Your task to perform on an android device: Search for pizza restaurants on Maps Image 0: 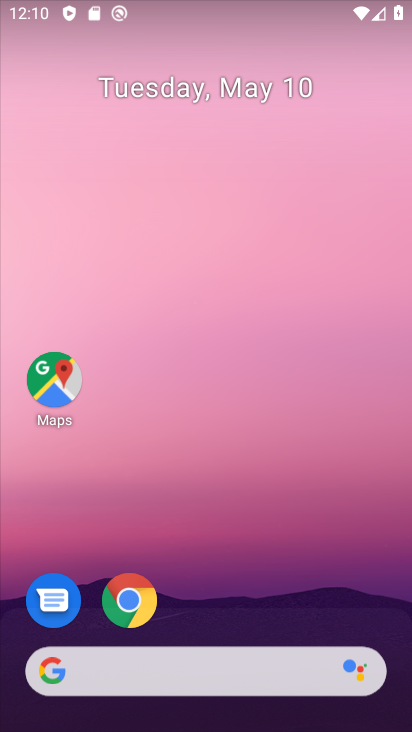
Step 0: click (59, 384)
Your task to perform on an android device: Search for pizza restaurants on Maps Image 1: 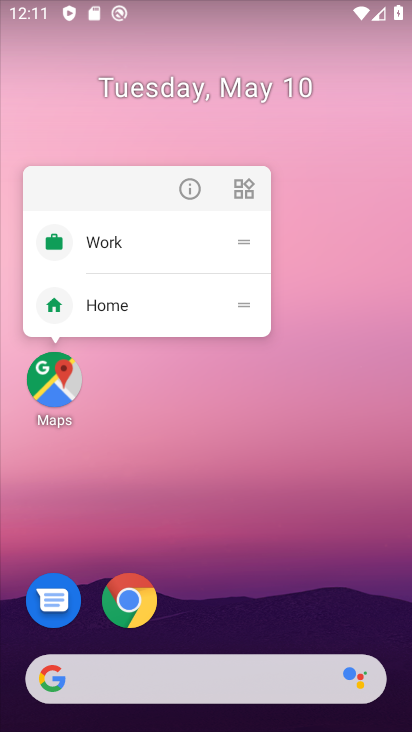
Step 1: click (36, 391)
Your task to perform on an android device: Search for pizza restaurants on Maps Image 2: 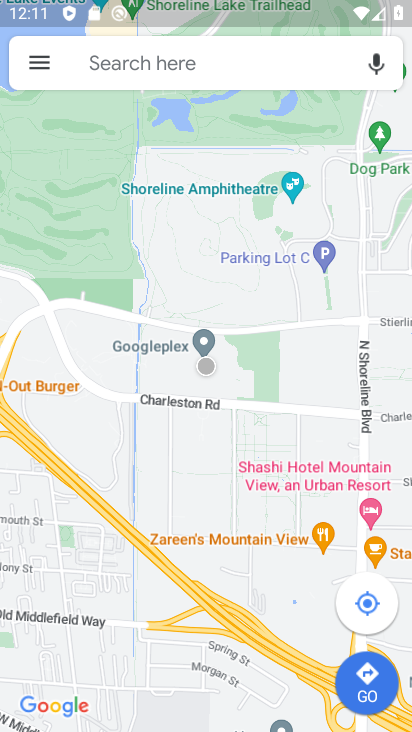
Step 2: click (206, 58)
Your task to perform on an android device: Search for pizza restaurants on Maps Image 3: 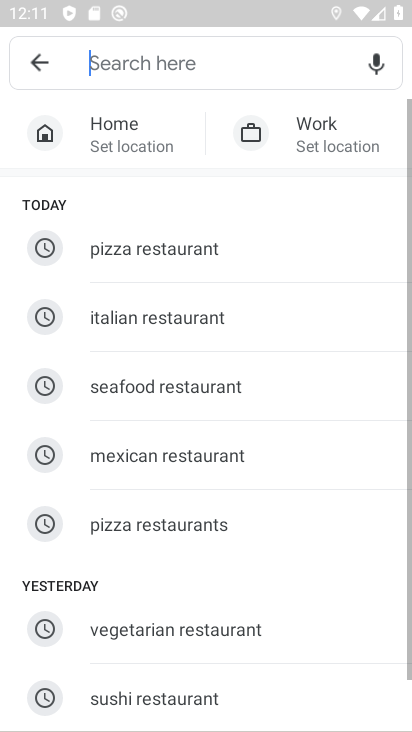
Step 3: click (182, 77)
Your task to perform on an android device: Search for pizza restaurants on Maps Image 4: 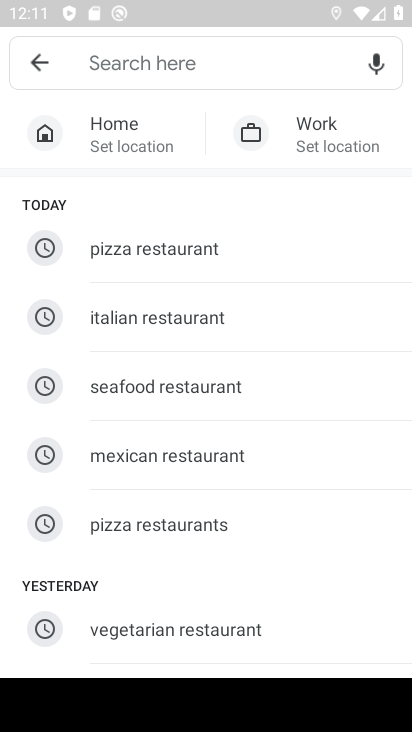
Step 4: click (164, 532)
Your task to perform on an android device: Search for pizza restaurants on Maps Image 5: 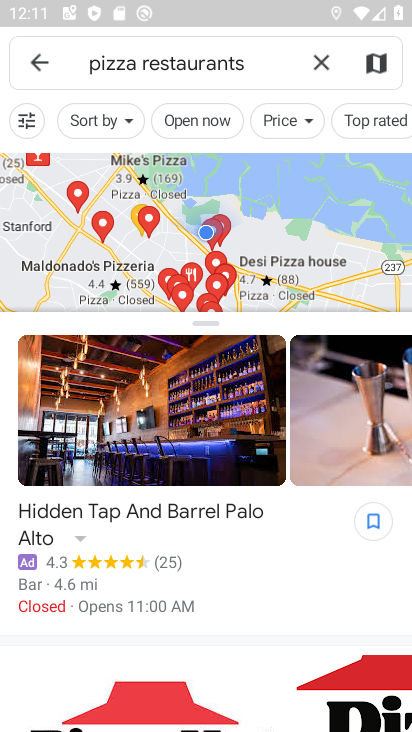
Step 5: task complete